Your task to perform on an android device: open sync settings in chrome Image 0: 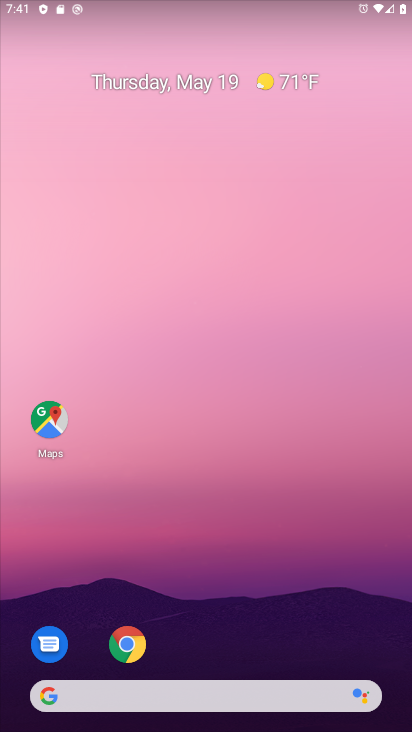
Step 0: click (127, 639)
Your task to perform on an android device: open sync settings in chrome Image 1: 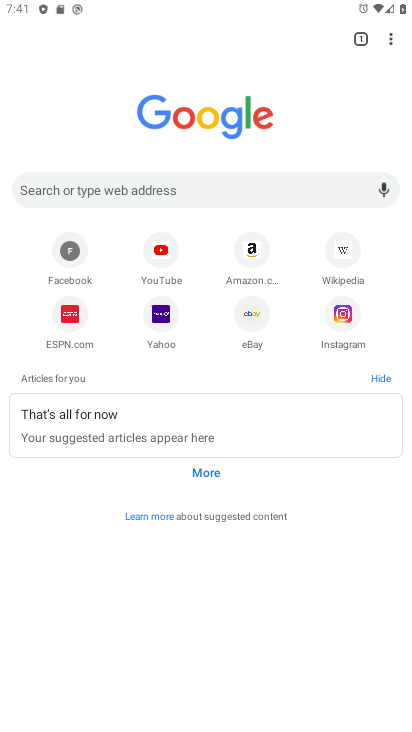
Step 1: click (390, 33)
Your task to perform on an android device: open sync settings in chrome Image 2: 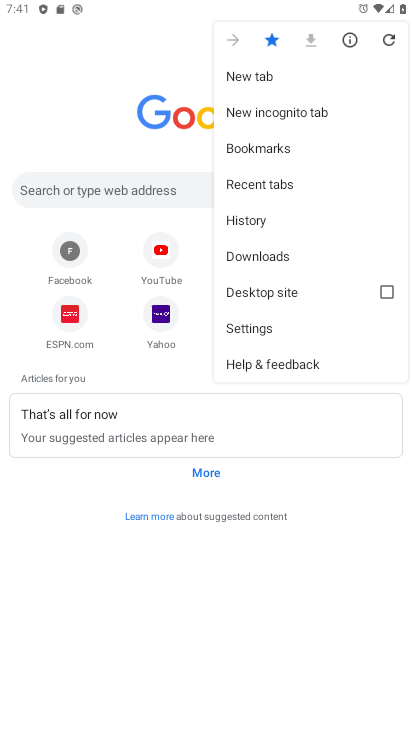
Step 2: click (253, 327)
Your task to perform on an android device: open sync settings in chrome Image 3: 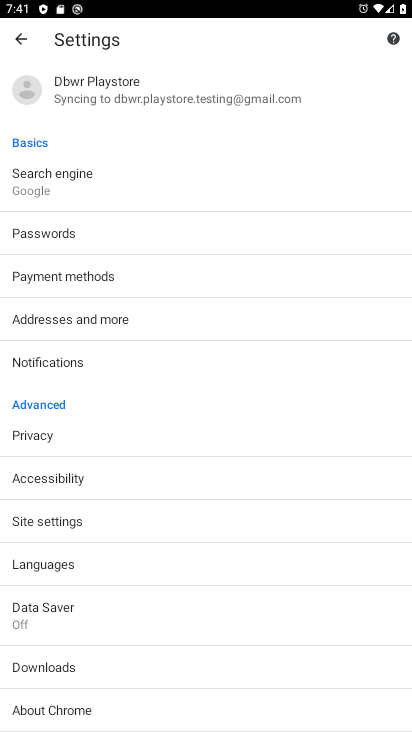
Step 3: click (116, 73)
Your task to perform on an android device: open sync settings in chrome Image 4: 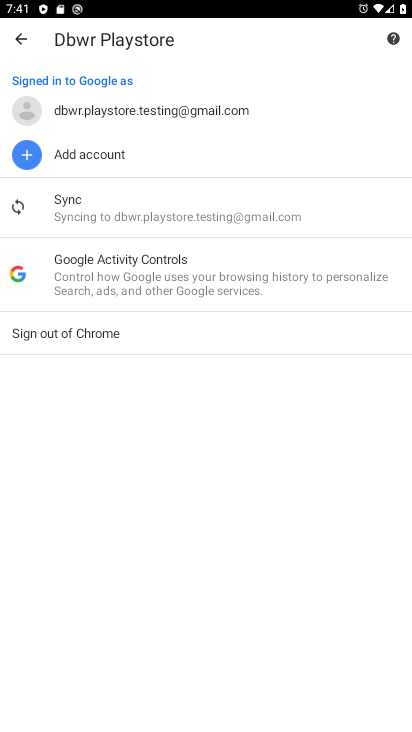
Step 4: click (78, 204)
Your task to perform on an android device: open sync settings in chrome Image 5: 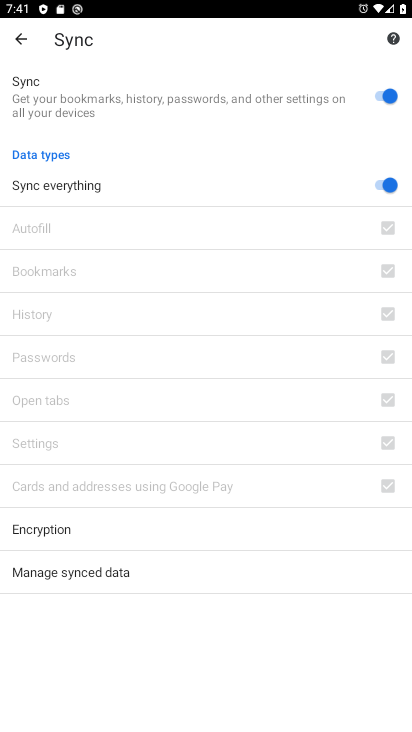
Step 5: task complete